Your task to perform on an android device: turn notification dots on Image 0: 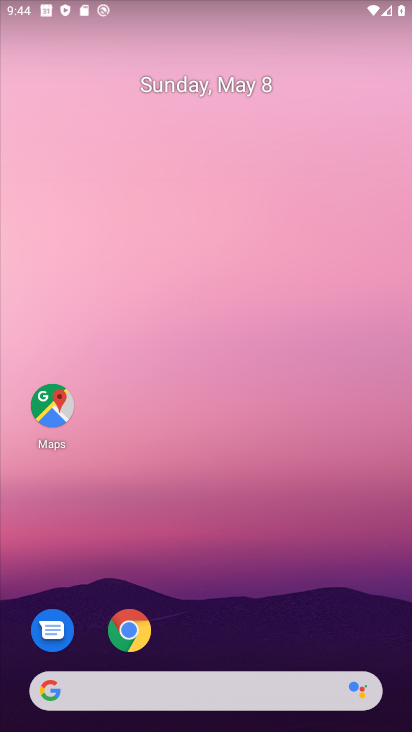
Step 0: drag from (210, 726) to (152, 148)
Your task to perform on an android device: turn notification dots on Image 1: 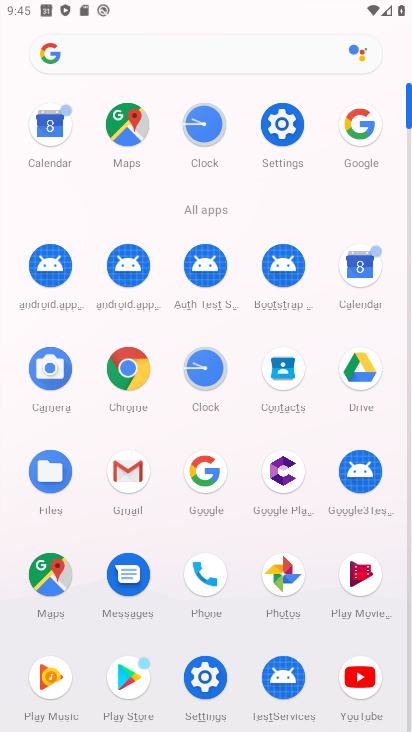
Step 1: click (284, 126)
Your task to perform on an android device: turn notification dots on Image 2: 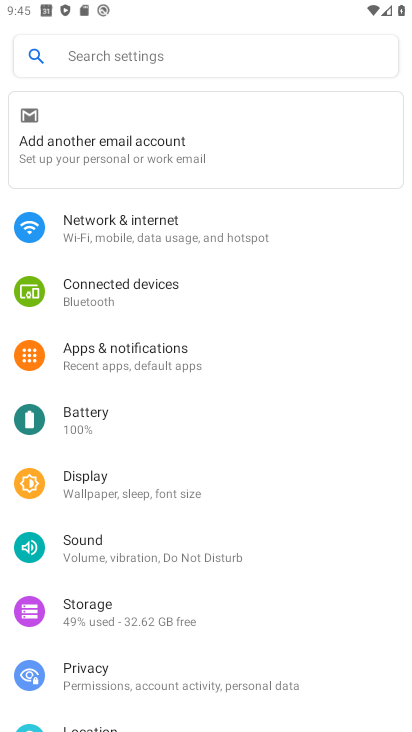
Step 2: click (156, 354)
Your task to perform on an android device: turn notification dots on Image 3: 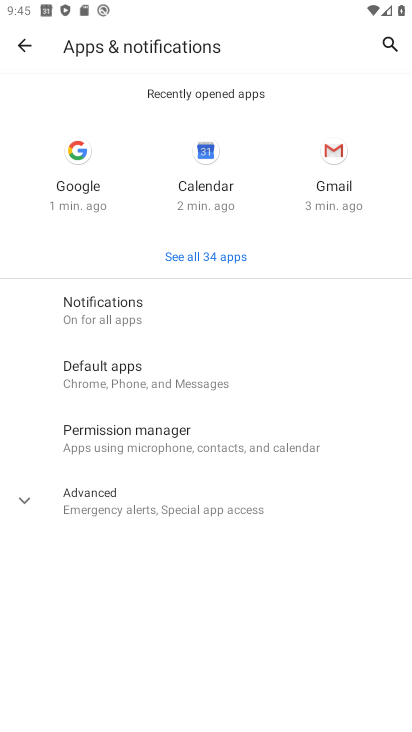
Step 3: click (91, 314)
Your task to perform on an android device: turn notification dots on Image 4: 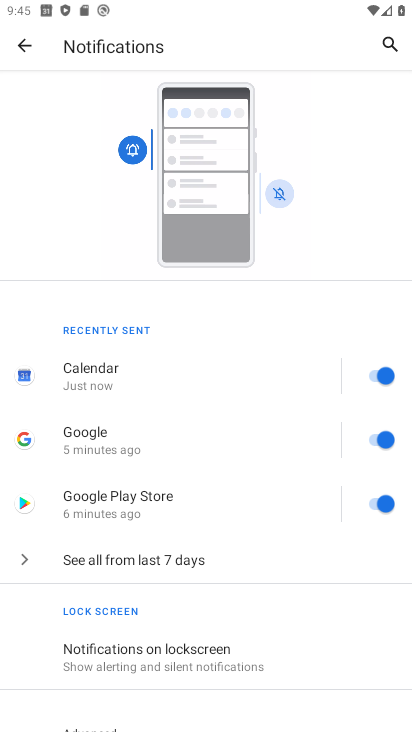
Step 4: drag from (182, 677) to (179, 548)
Your task to perform on an android device: turn notification dots on Image 5: 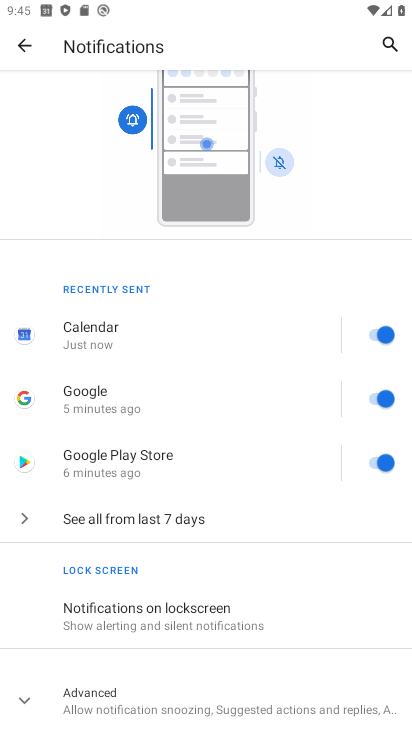
Step 5: click (83, 691)
Your task to perform on an android device: turn notification dots on Image 6: 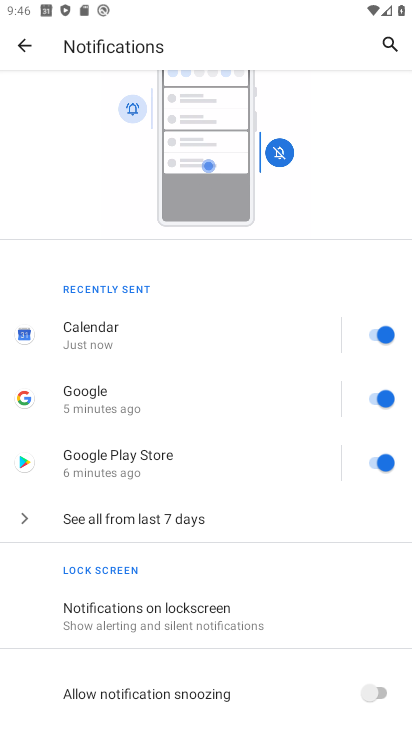
Step 6: task complete